Your task to perform on an android device: What's the weather like in Singapore? Image 0: 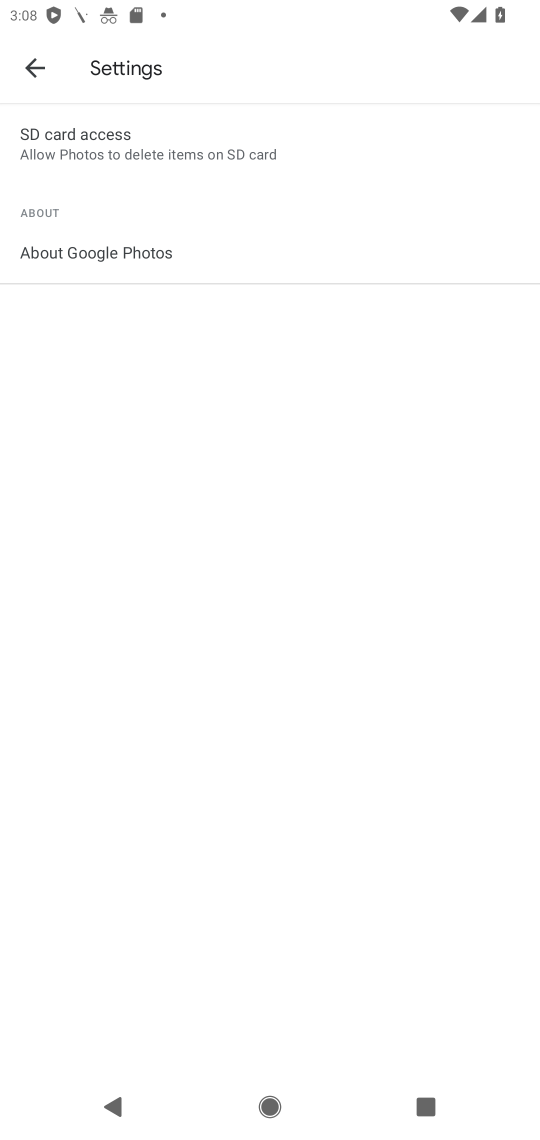
Step 0: press home button
Your task to perform on an android device: What's the weather like in Singapore? Image 1: 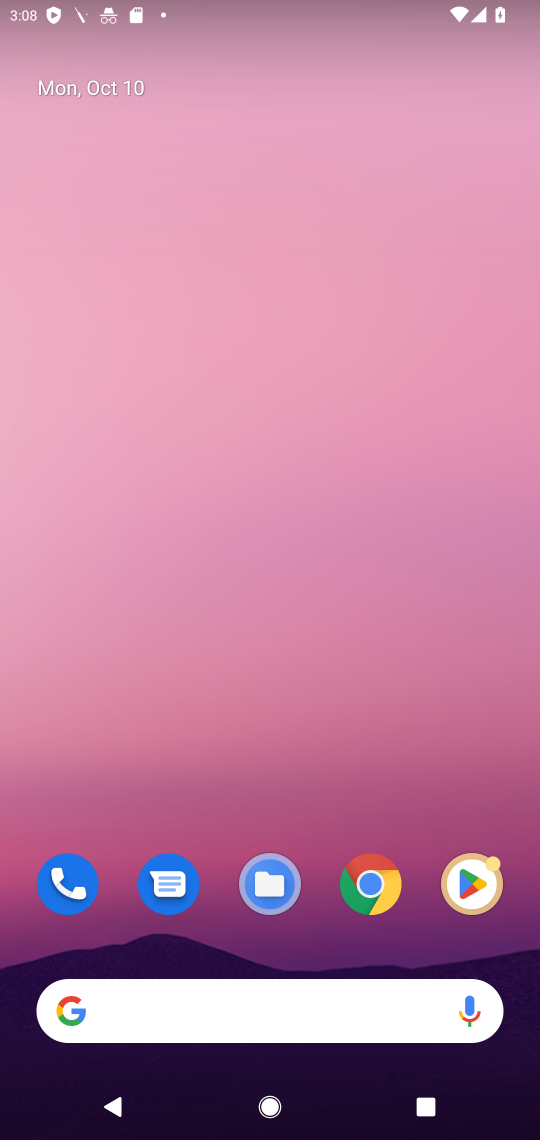
Step 1: click (343, 999)
Your task to perform on an android device: What's the weather like in Singapore? Image 2: 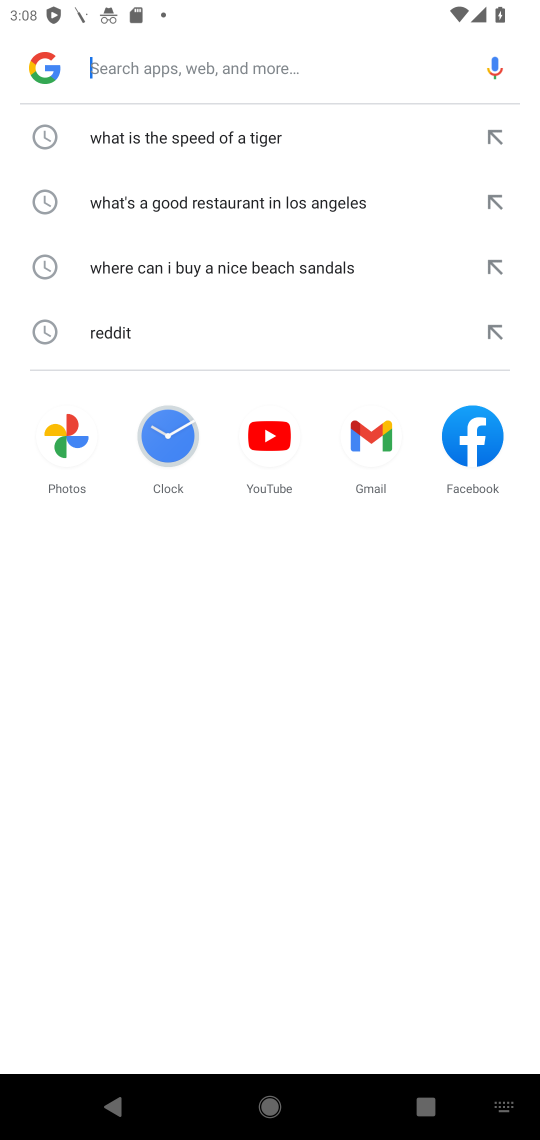
Step 2: type "weather like in Singapore"
Your task to perform on an android device: What's the weather like in Singapore? Image 3: 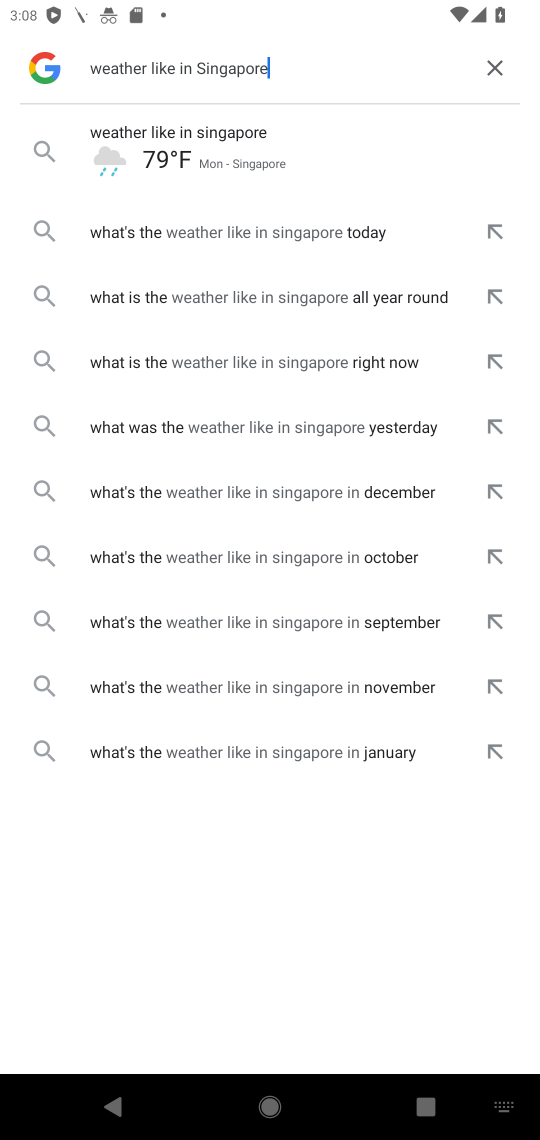
Step 3: click (220, 134)
Your task to perform on an android device: What's the weather like in Singapore? Image 4: 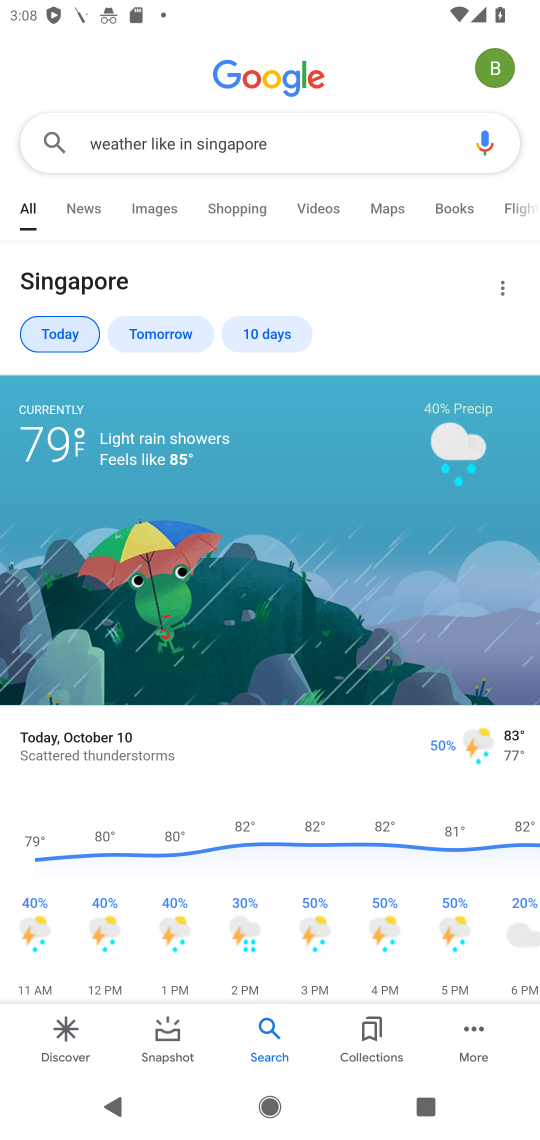
Step 4: task complete